Your task to perform on an android device: open app "eBay: The shopping marketplace" (install if not already installed) Image 0: 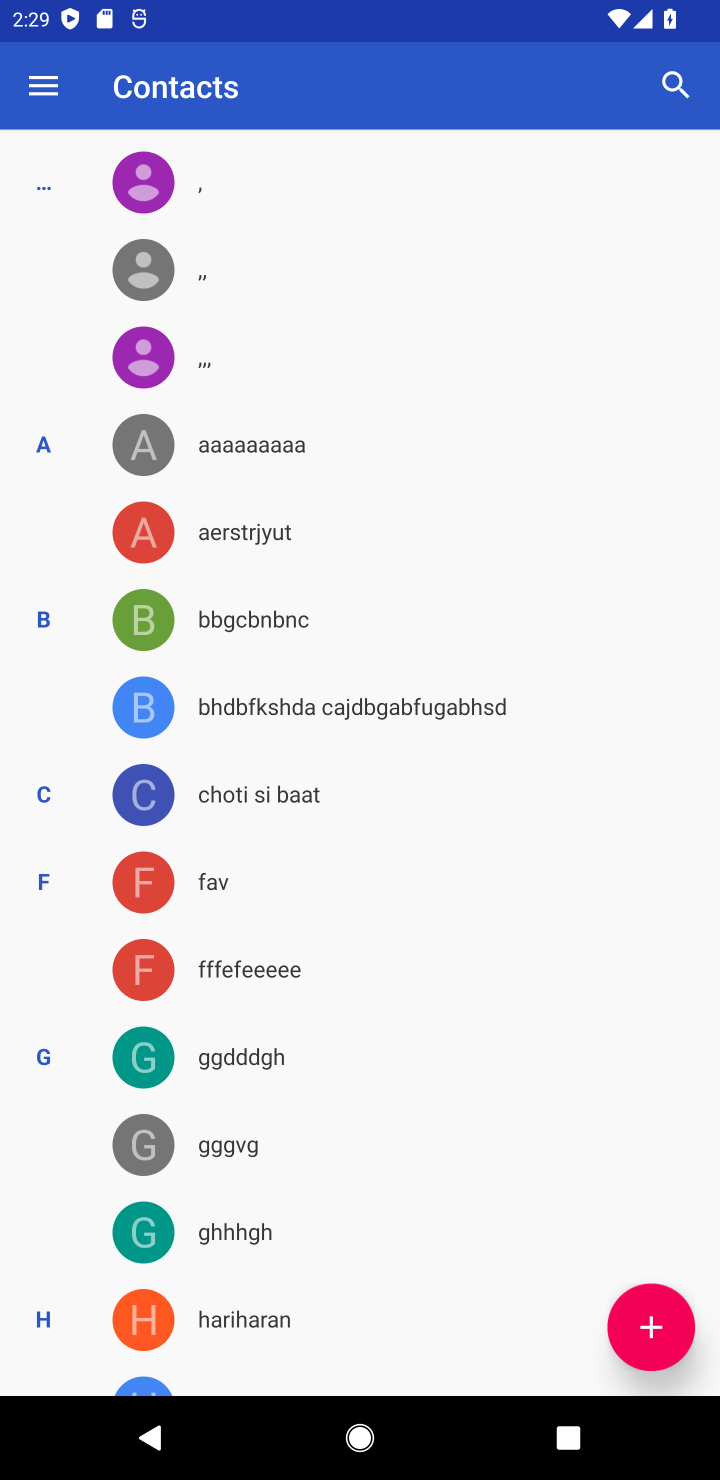
Step 0: press home button
Your task to perform on an android device: open app "eBay: The shopping marketplace" (install if not already installed) Image 1: 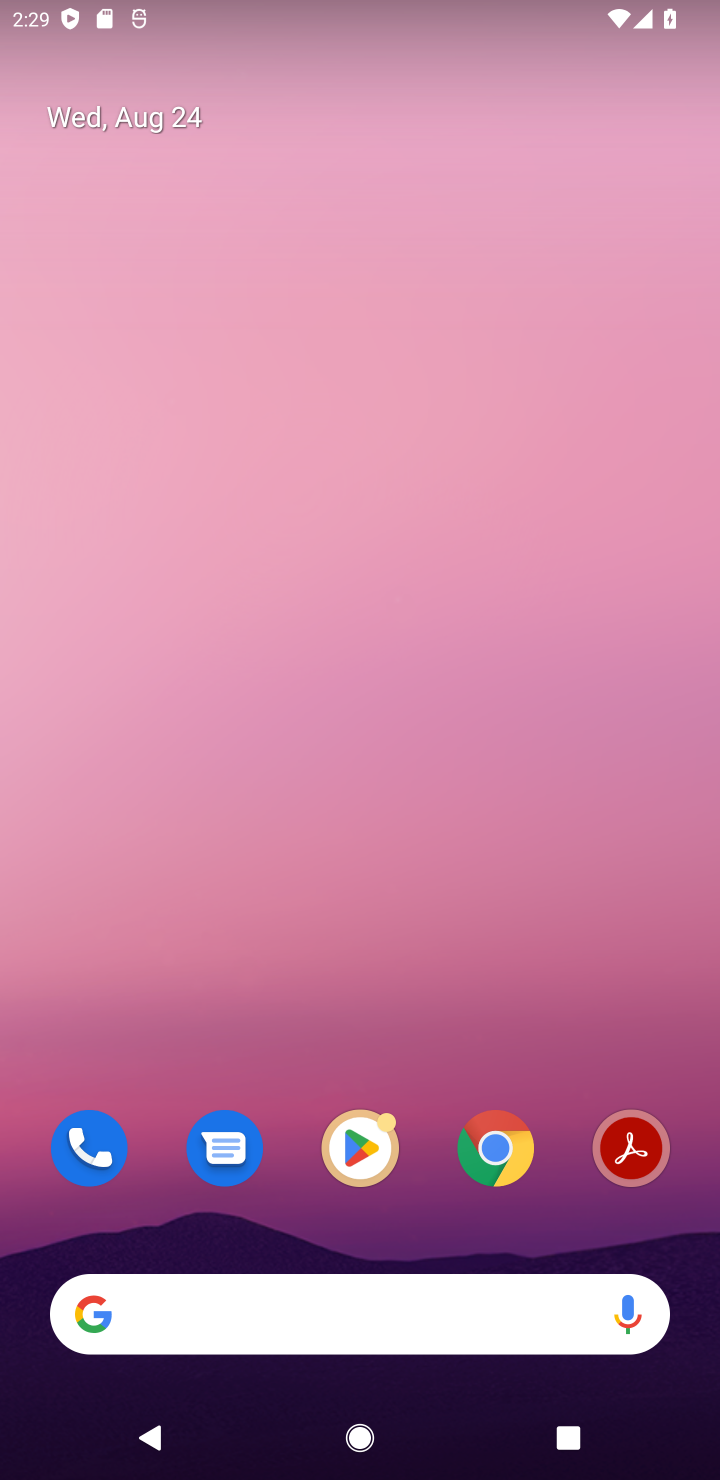
Step 1: drag from (398, 1216) to (429, 360)
Your task to perform on an android device: open app "eBay: The shopping marketplace" (install if not already installed) Image 2: 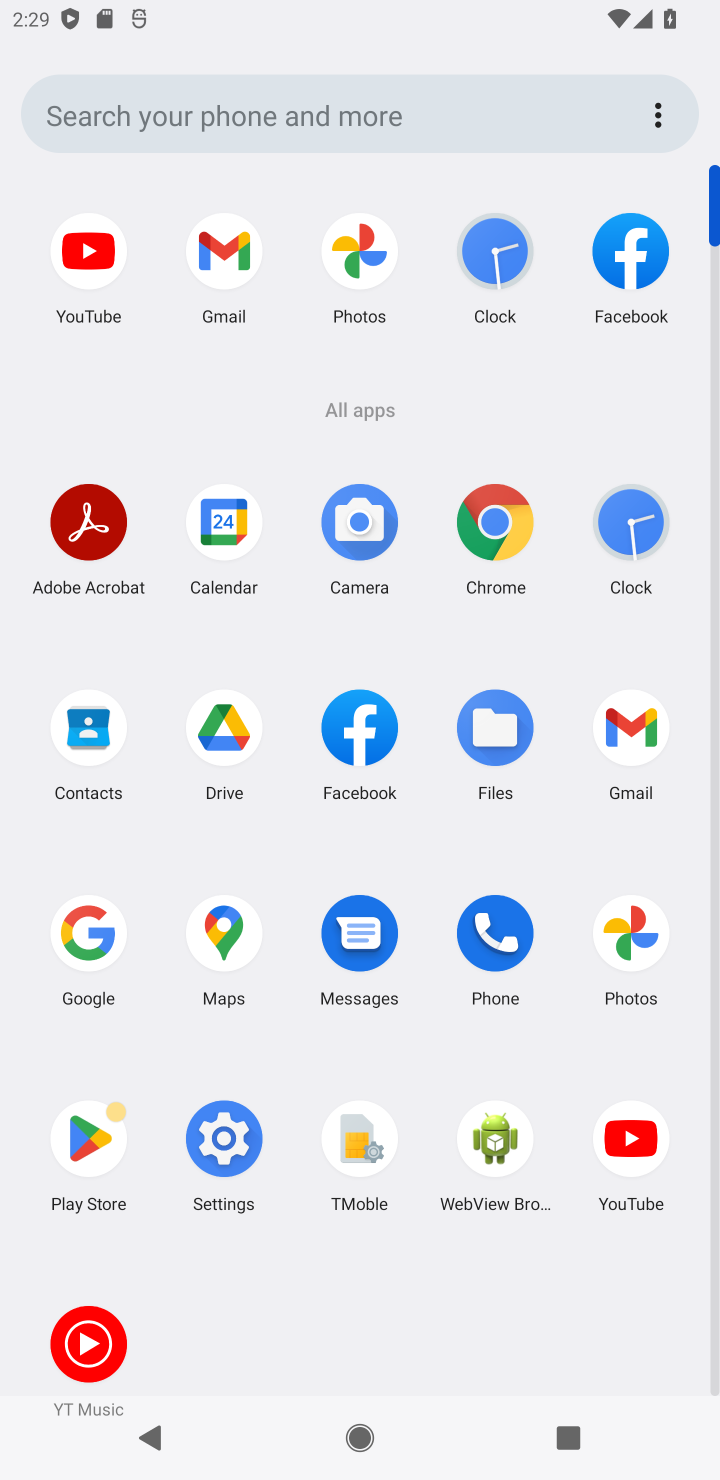
Step 2: click (71, 1150)
Your task to perform on an android device: open app "eBay: The shopping marketplace" (install if not already installed) Image 3: 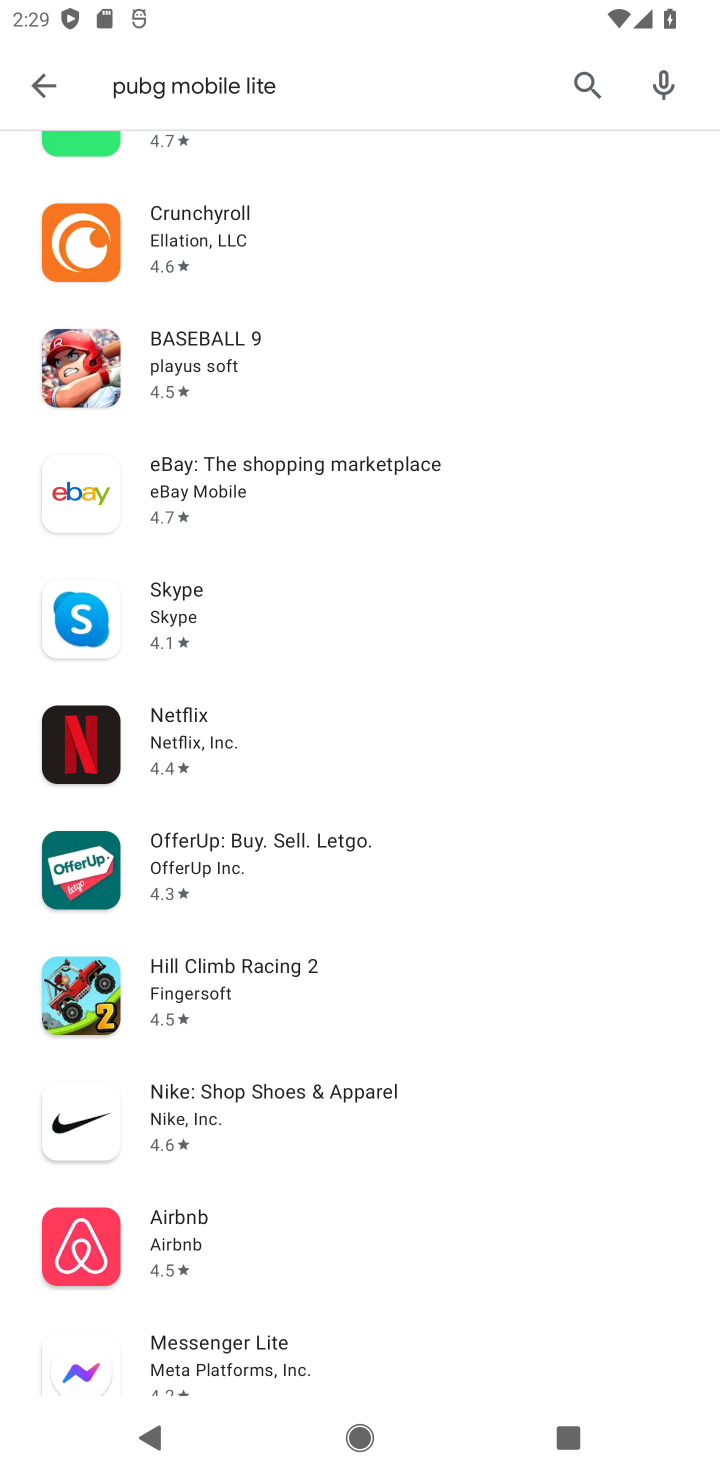
Step 3: click (53, 87)
Your task to perform on an android device: open app "eBay: The shopping marketplace" (install if not already installed) Image 4: 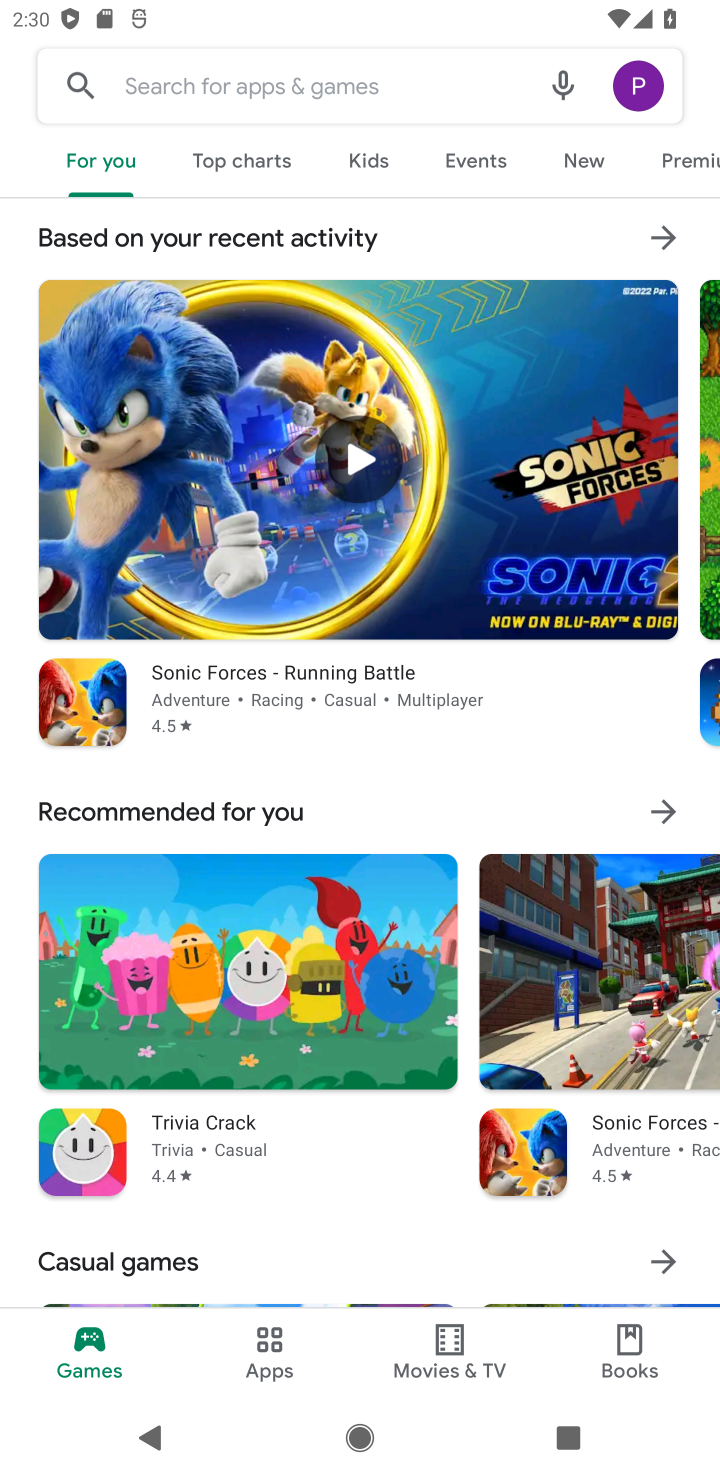
Step 4: click (405, 85)
Your task to perform on an android device: open app "eBay: The shopping marketplace" (install if not already installed) Image 5: 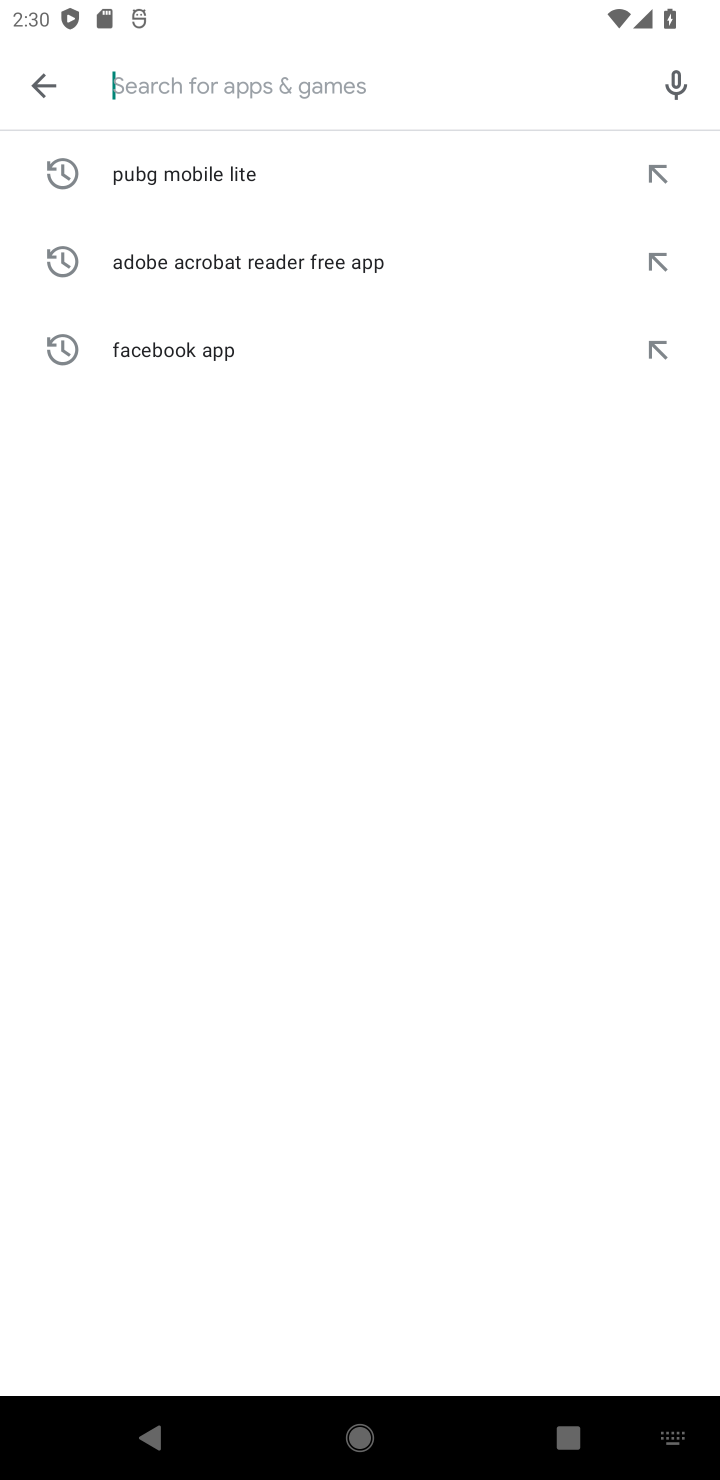
Step 5: type "eBay "
Your task to perform on an android device: open app "eBay: The shopping marketplace" (install if not already installed) Image 6: 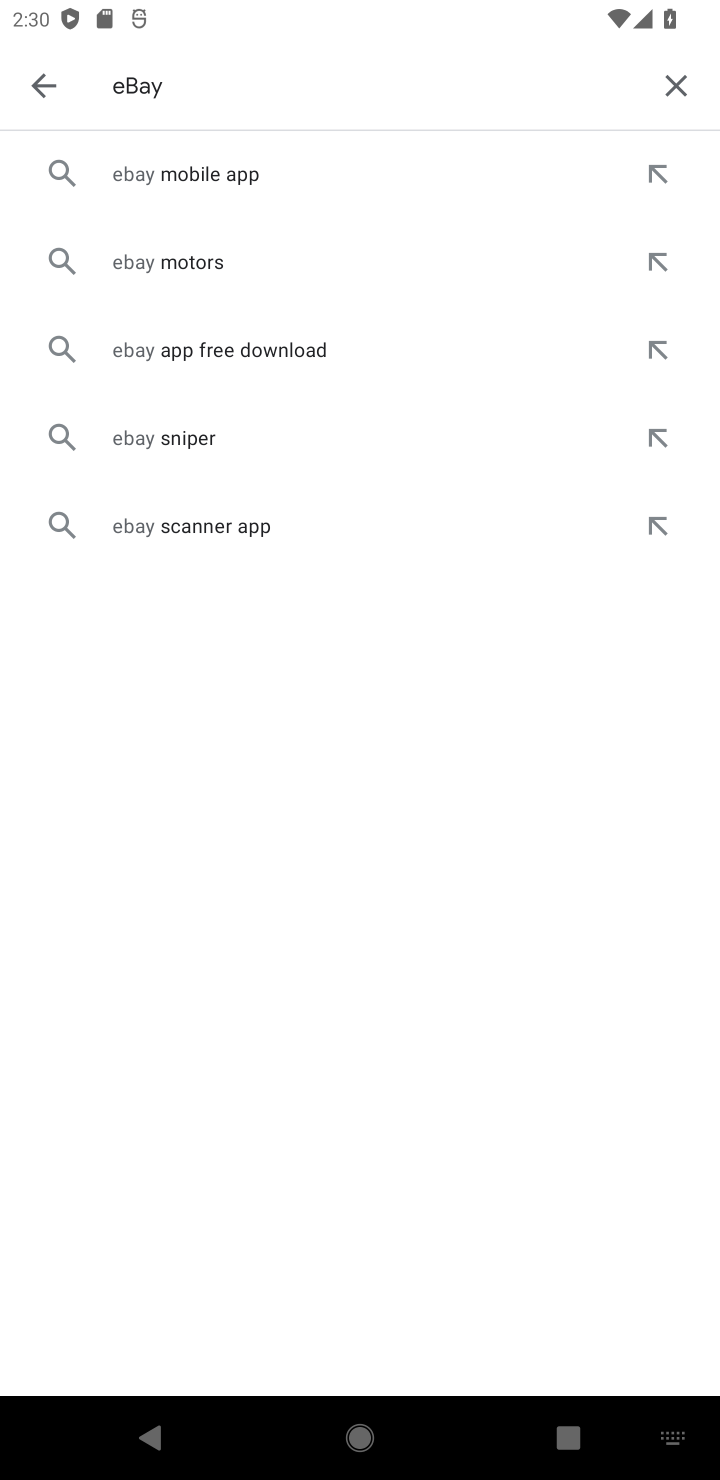
Step 6: click (235, 182)
Your task to perform on an android device: open app "eBay: The shopping marketplace" (install if not already installed) Image 7: 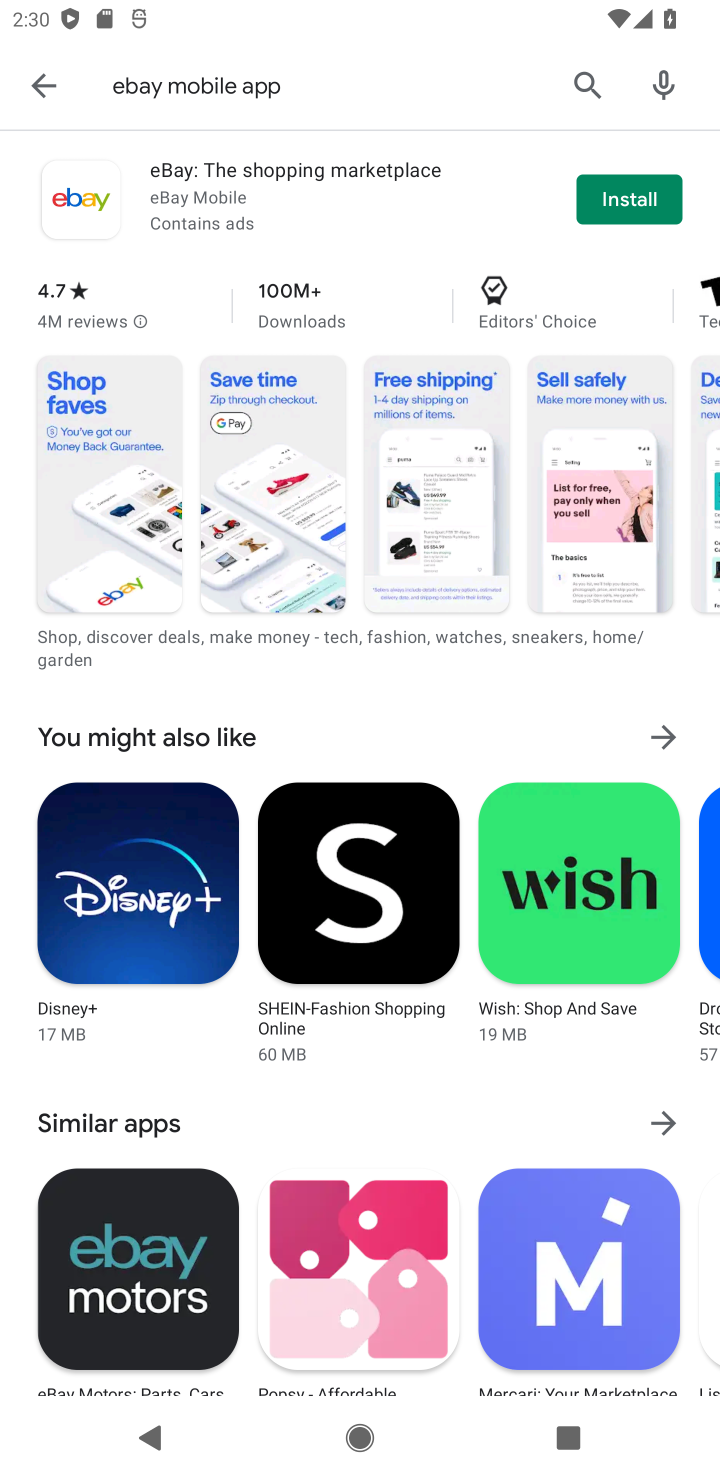
Step 7: click (609, 185)
Your task to perform on an android device: open app "eBay: The shopping marketplace" (install if not already installed) Image 8: 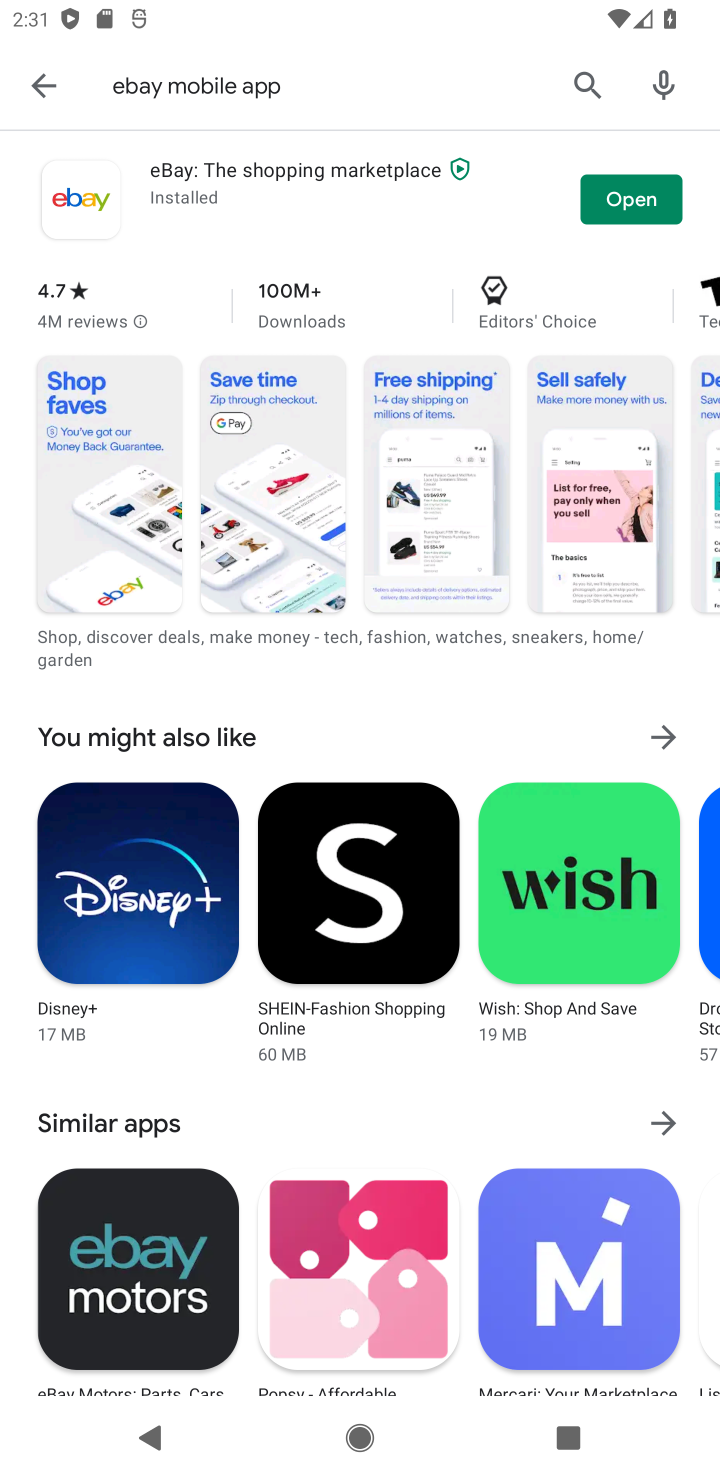
Step 8: task complete